Your task to perform on an android device: Open the calendar app, open the side menu, and click the "Day" option Image 0: 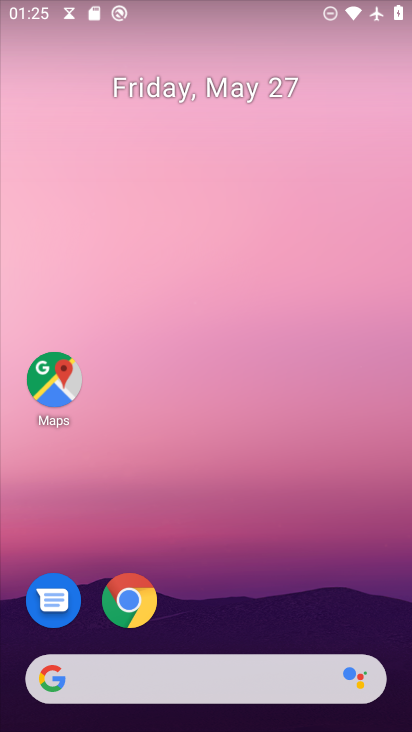
Step 0: drag from (294, 474) to (282, 20)
Your task to perform on an android device: Open the calendar app, open the side menu, and click the "Day" option Image 1: 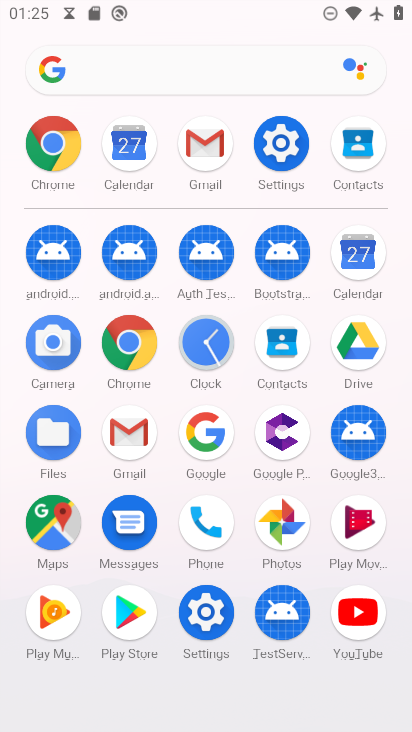
Step 1: click (117, 137)
Your task to perform on an android device: Open the calendar app, open the side menu, and click the "Day" option Image 2: 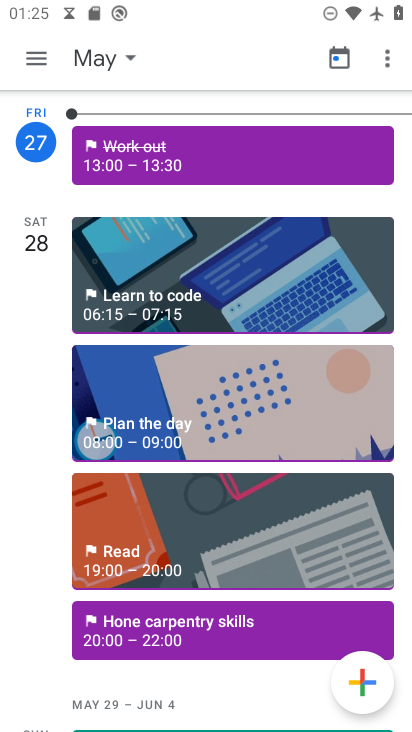
Step 2: click (28, 62)
Your task to perform on an android device: Open the calendar app, open the side menu, and click the "Day" option Image 3: 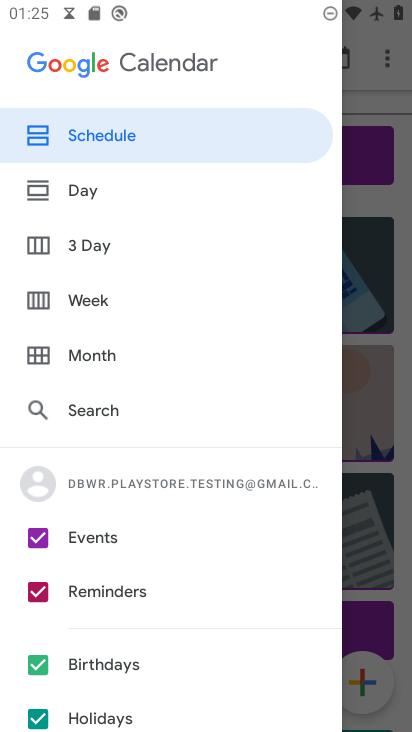
Step 3: click (95, 178)
Your task to perform on an android device: Open the calendar app, open the side menu, and click the "Day" option Image 4: 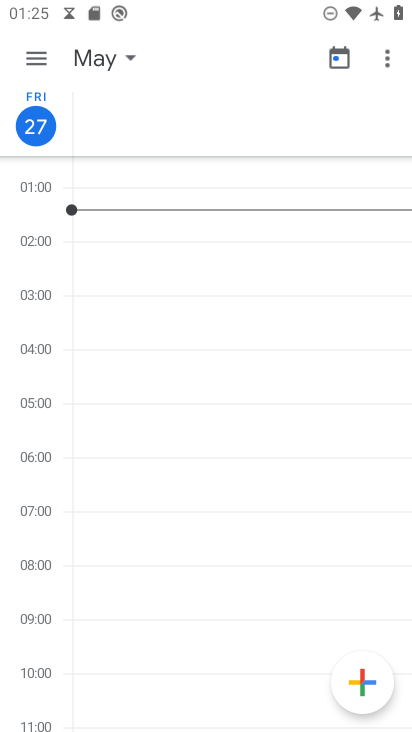
Step 4: task complete